Your task to perform on an android device: create a new album in the google photos Image 0: 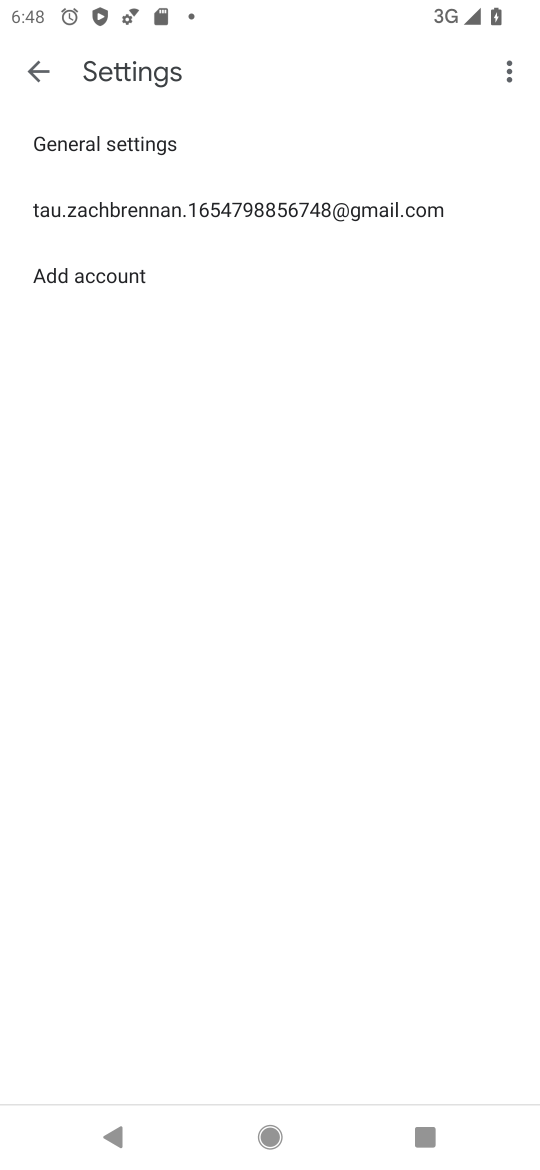
Step 0: press home button
Your task to perform on an android device: create a new album in the google photos Image 1: 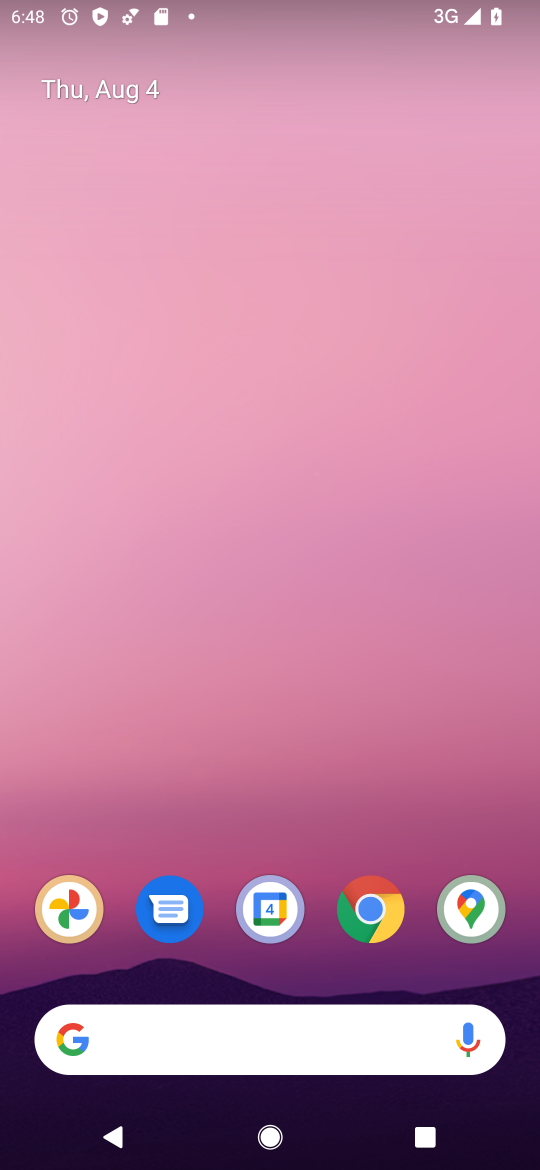
Step 1: drag from (206, 784) to (119, 184)
Your task to perform on an android device: create a new album in the google photos Image 2: 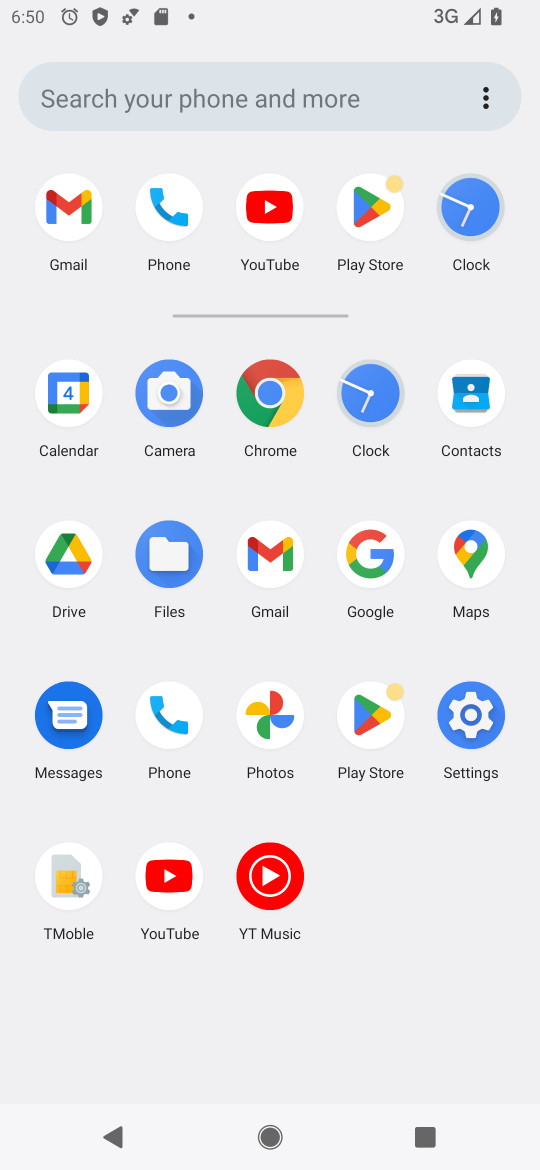
Step 2: click (285, 721)
Your task to perform on an android device: create a new album in the google photos Image 3: 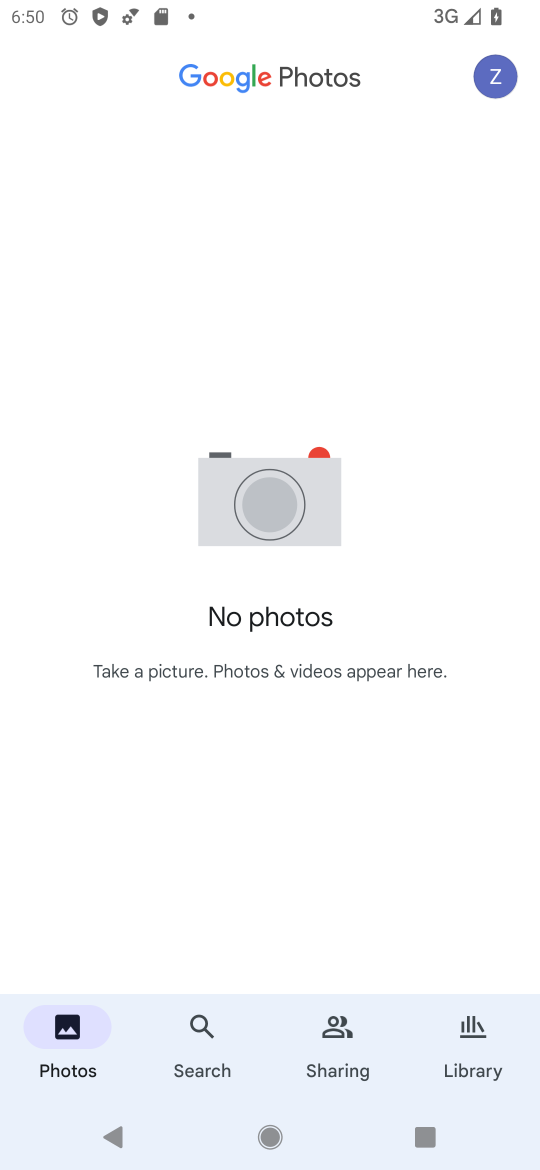
Step 3: task complete